Your task to perform on an android device: Go to location settings Image 0: 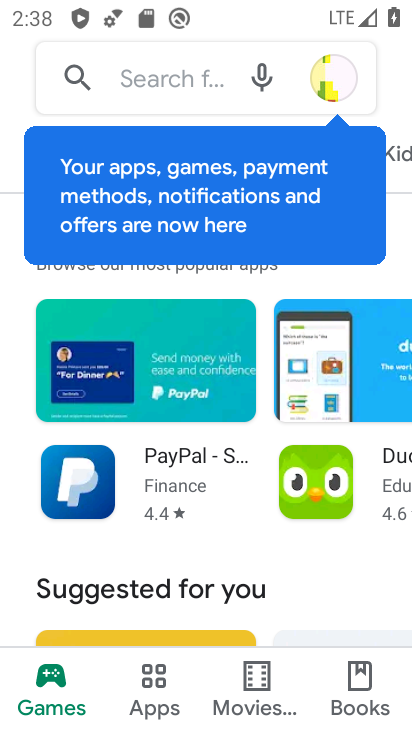
Step 0: press home button
Your task to perform on an android device: Go to location settings Image 1: 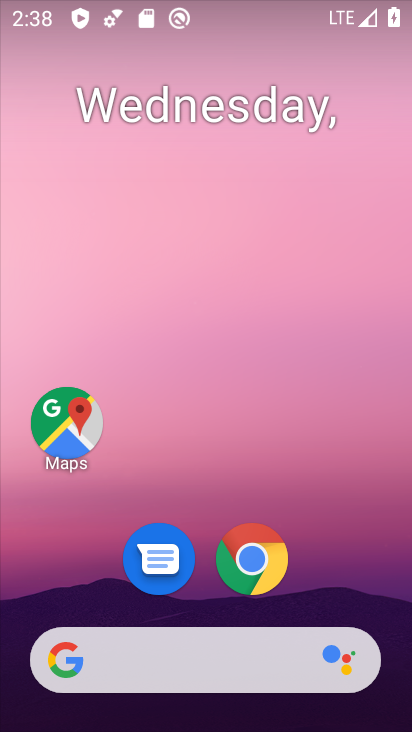
Step 1: drag from (363, 374) to (357, 90)
Your task to perform on an android device: Go to location settings Image 2: 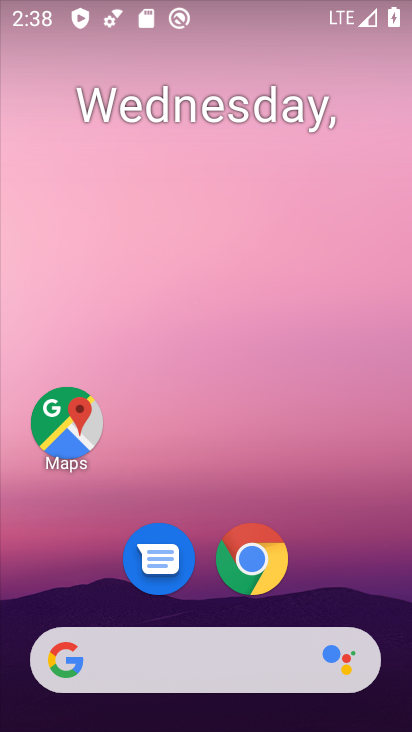
Step 2: drag from (373, 533) to (342, 177)
Your task to perform on an android device: Go to location settings Image 3: 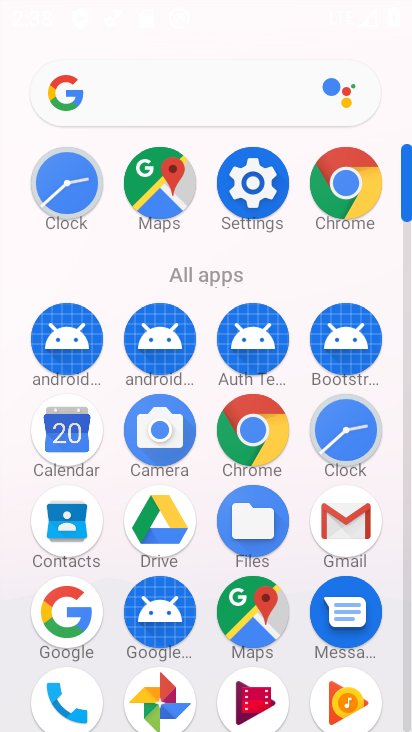
Step 3: click (238, 189)
Your task to perform on an android device: Go to location settings Image 4: 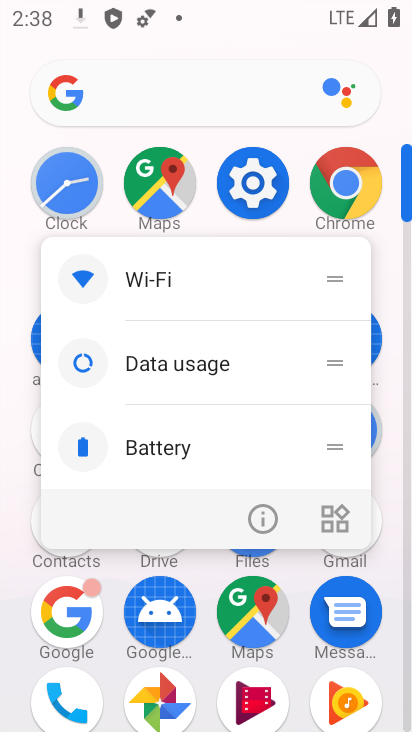
Step 4: click (239, 186)
Your task to perform on an android device: Go to location settings Image 5: 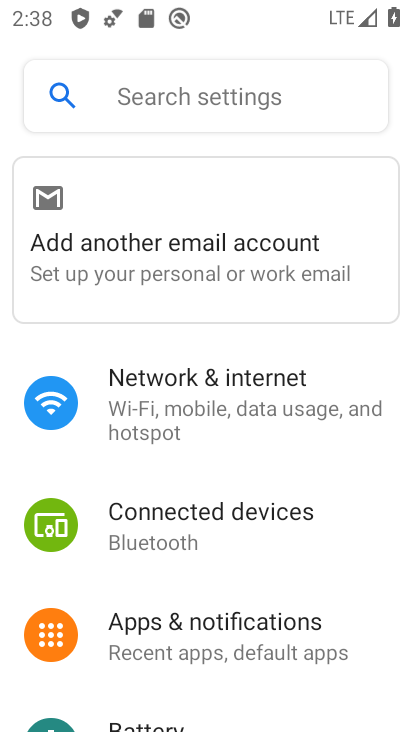
Step 5: drag from (357, 611) to (353, 363)
Your task to perform on an android device: Go to location settings Image 6: 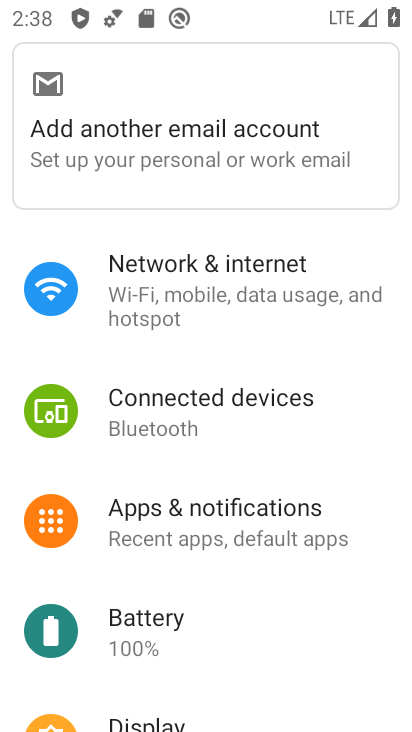
Step 6: drag from (302, 533) to (317, 340)
Your task to perform on an android device: Go to location settings Image 7: 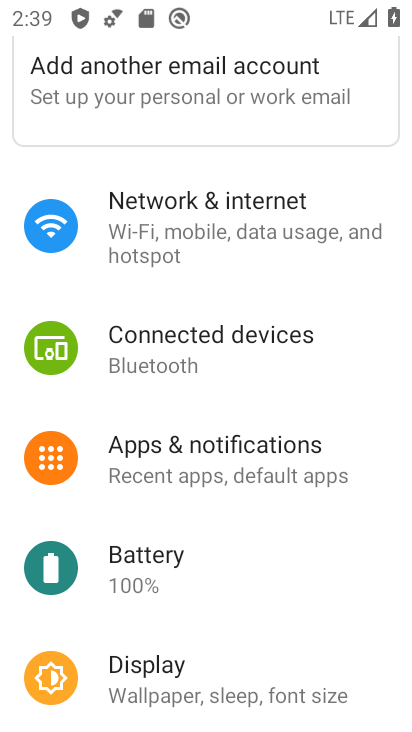
Step 7: drag from (299, 557) to (311, 377)
Your task to perform on an android device: Go to location settings Image 8: 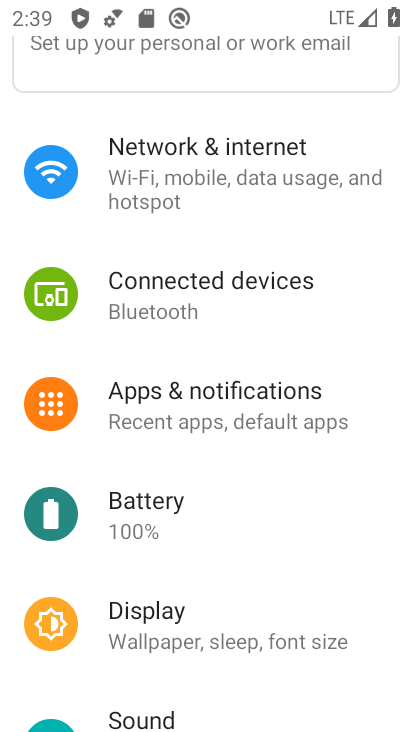
Step 8: drag from (276, 487) to (274, 309)
Your task to perform on an android device: Go to location settings Image 9: 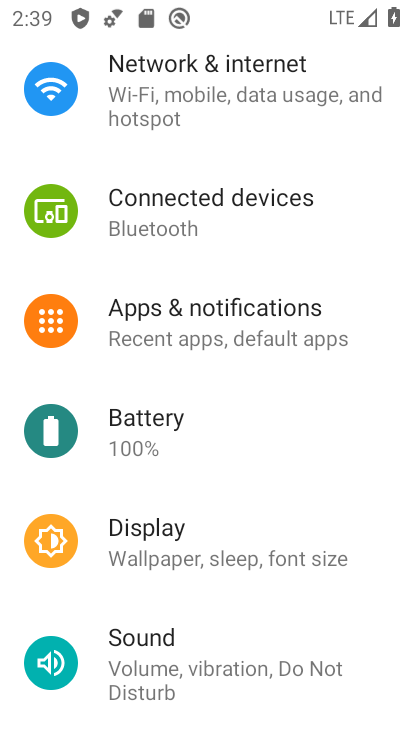
Step 9: drag from (280, 528) to (293, 265)
Your task to perform on an android device: Go to location settings Image 10: 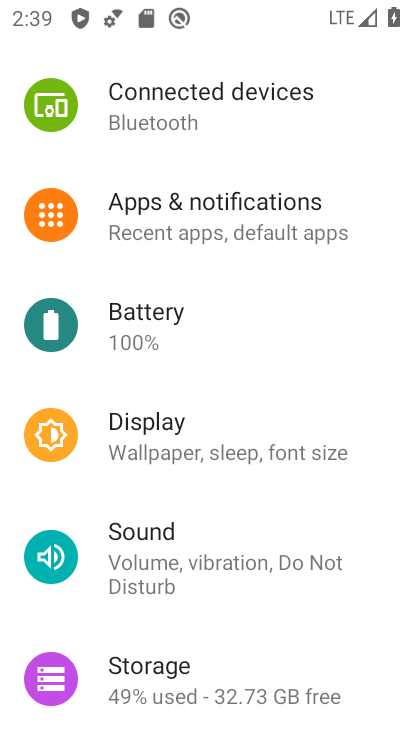
Step 10: drag from (248, 629) to (256, 303)
Your task to perform on an android device: Go to location settings Image 11: 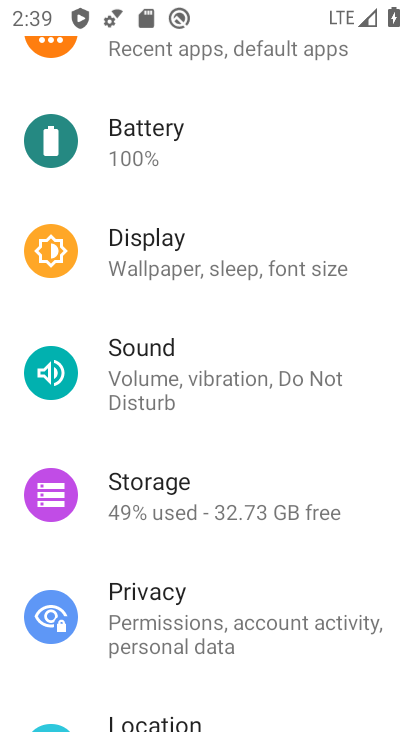
Step 11: drag from (235, 697) to (281, 260)
Your task to perform on an android device: Go to location settings Image 12: 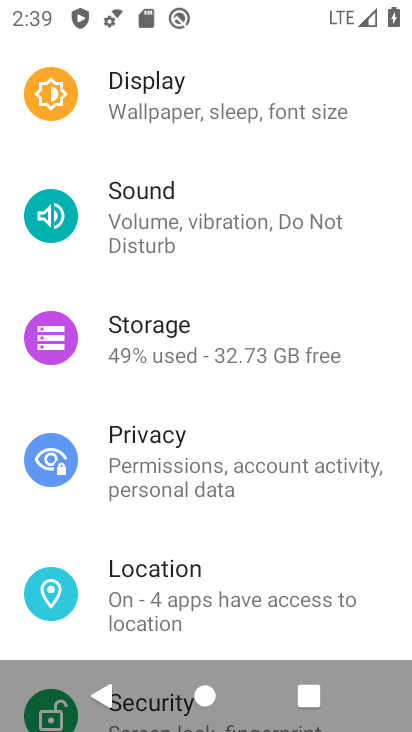
Step 12: click (203, 584)
Your task to perform on an android device: Go to location settings Image 13: 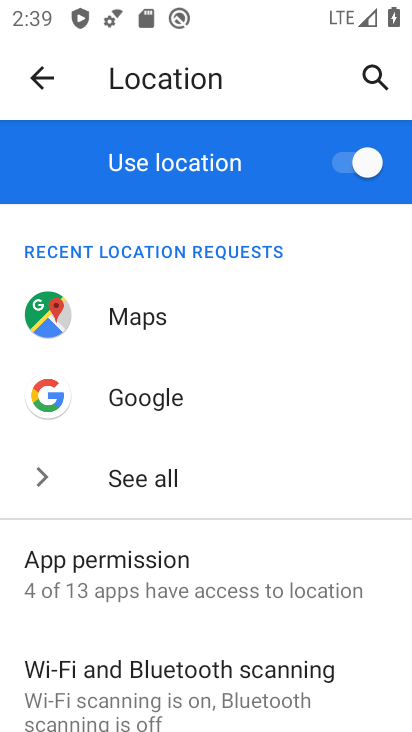
Step 13: task complete